Your task to perform on an android device: change keyboard looks Image 0: 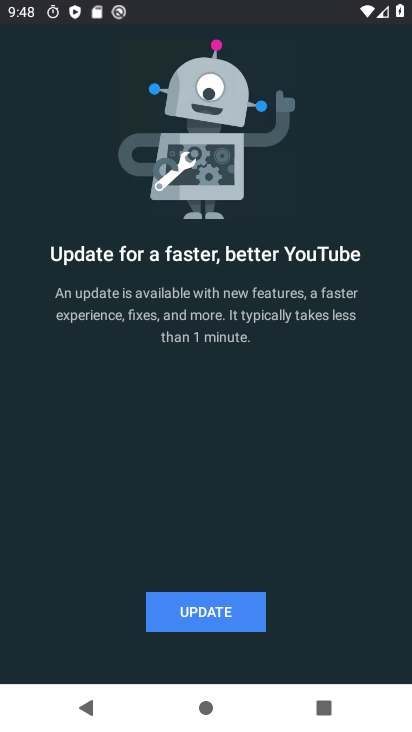
Step 0: press home button
Your task to perform on an android device: change keyboard looks Image 1: 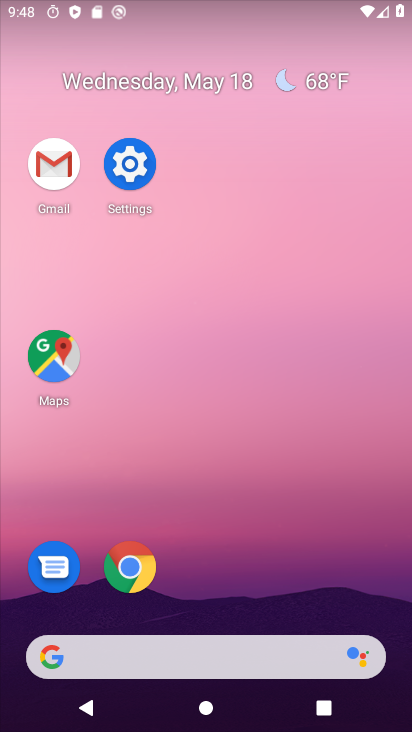
Step 1: click (128, 172)
Your task to perform on an android device: change keyboard looks Image 2: 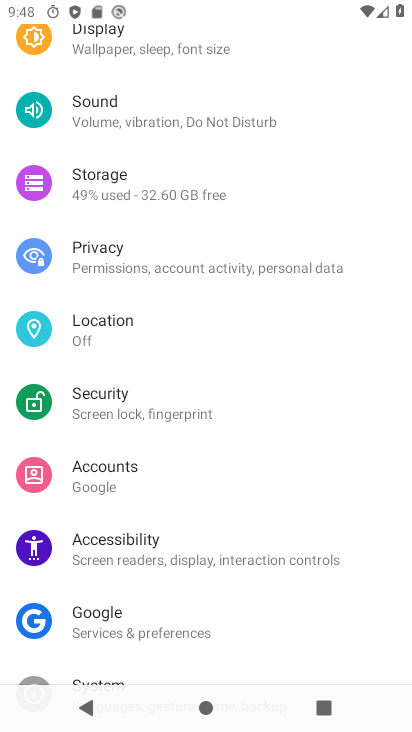
Step 2: drag from (233, 636) to (224, 279)
Your task to perform on an android device: change keyboard looks Image 3: 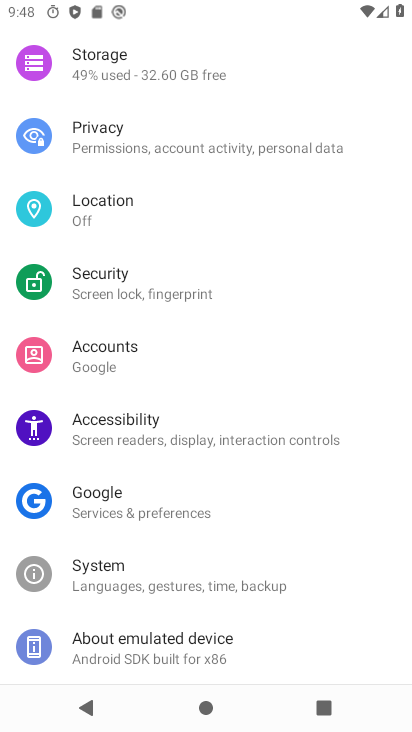
Step 3: click (149, 565)
Your task to perform on an android device: change keyboard looks Image 4: 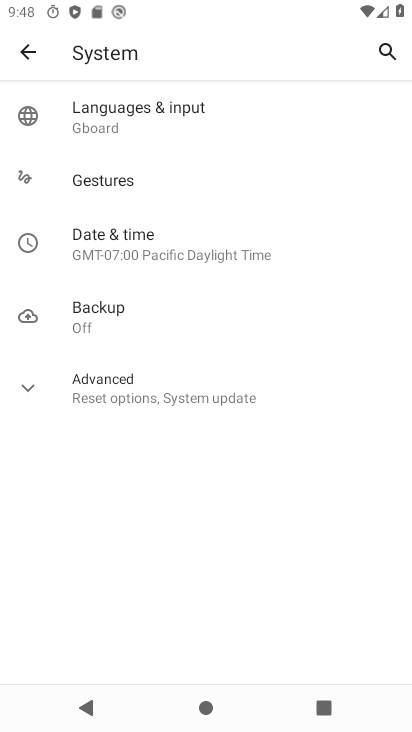
Step 4: click (150, 117)
Your task to perform on an android device: change keyboard looks Image 5: 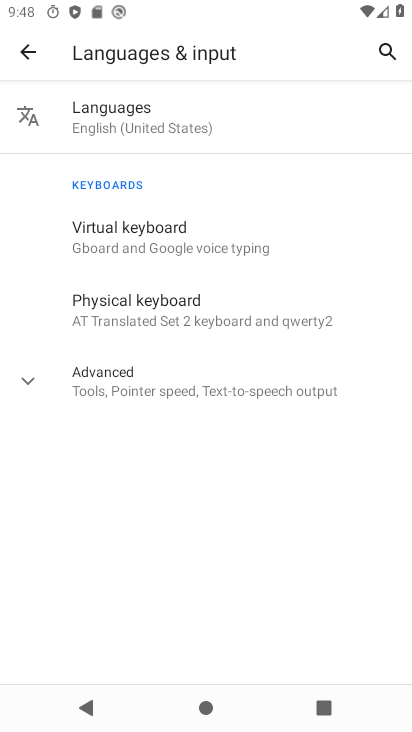
Step 5: click (156, 226)
Your task to perform on an android device: change keyboard looks Image 6: 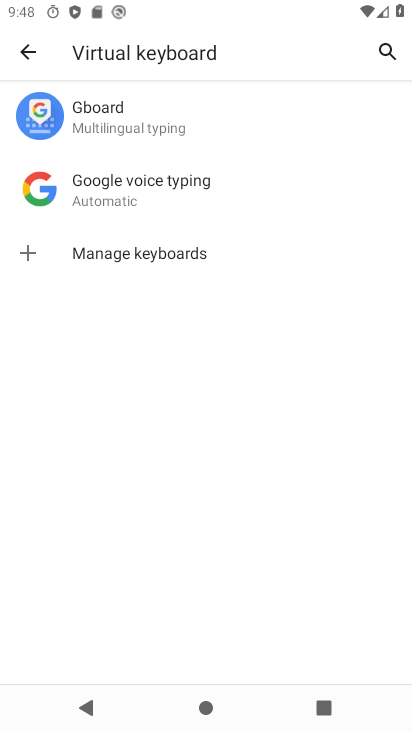
Step 6: click (134, 108)
Your task to perform on an android device: change keyboard looks Image 7: 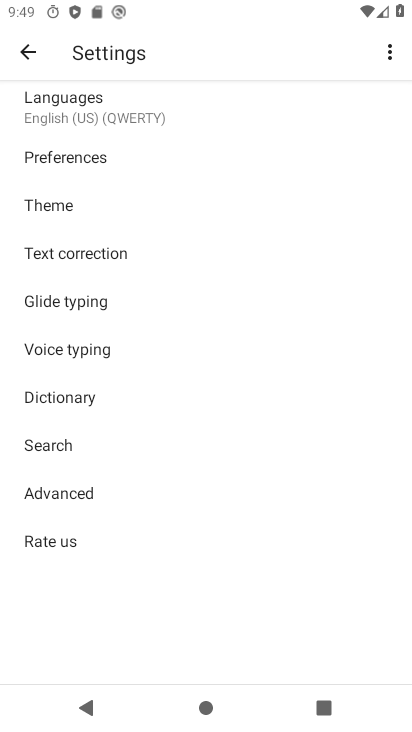
Step 7: click (65, 216)
Your task to perform on an android device: change keyboard looks Image 8: 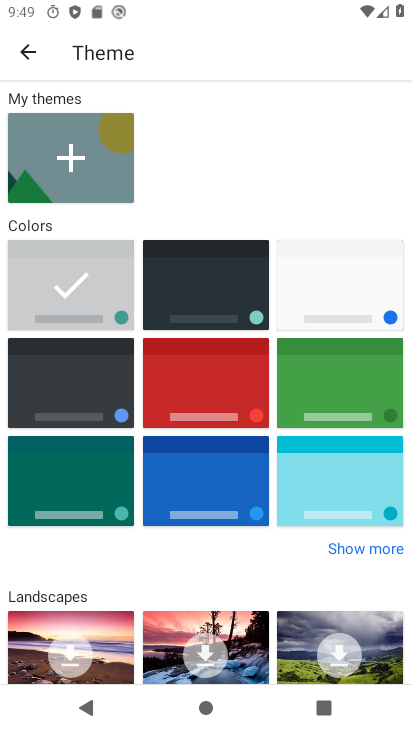
Step 8: click (256, 309)
Your task to perform on an android device: change keyboard looks Image 9: 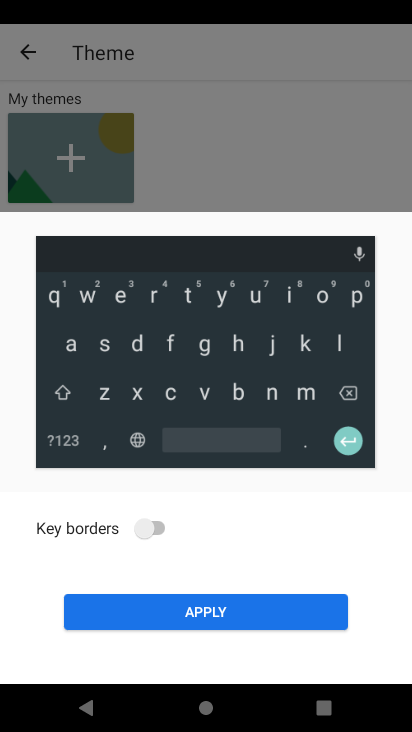
Step 9: click (153, 517)
Your task to perform on an android device: change keyboard looks Image 10: 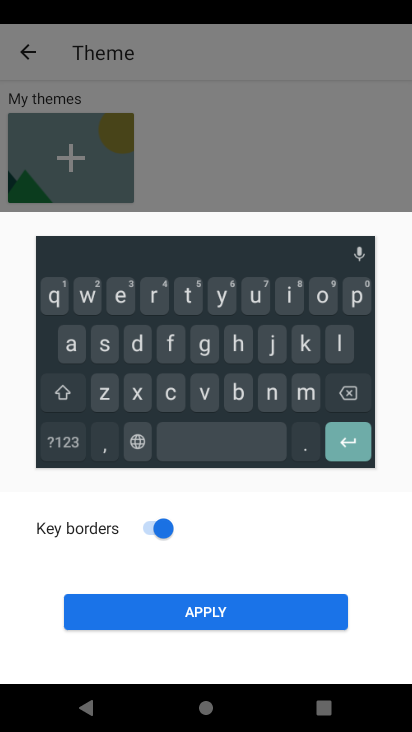
Step 10: click (307, 605)
Your task to perform on an android device: change keyboard looks Image 11: 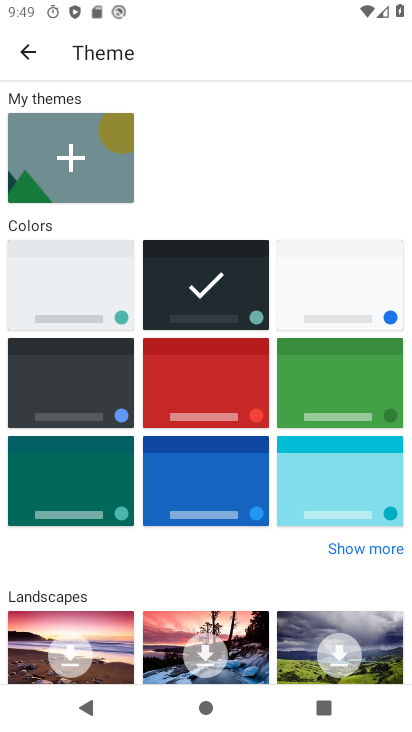
Step 11: task complete